Your task to perform on an android device: Go to eBay Image 0: 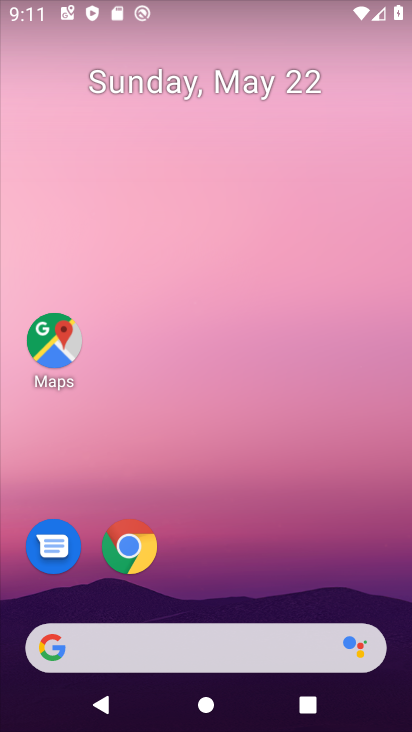
Step 0: click (141, 559)
Your task to perform on an android device: Go to eBay Image 1: 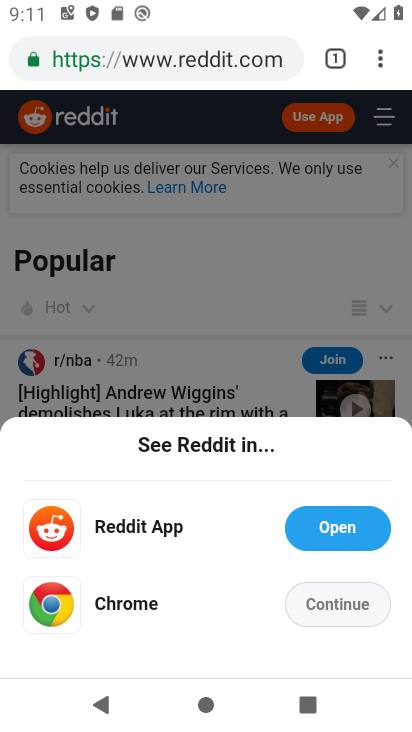
Step 1: click (283, 304)
Your task to perform on an android device: Go to eBay Image 2: 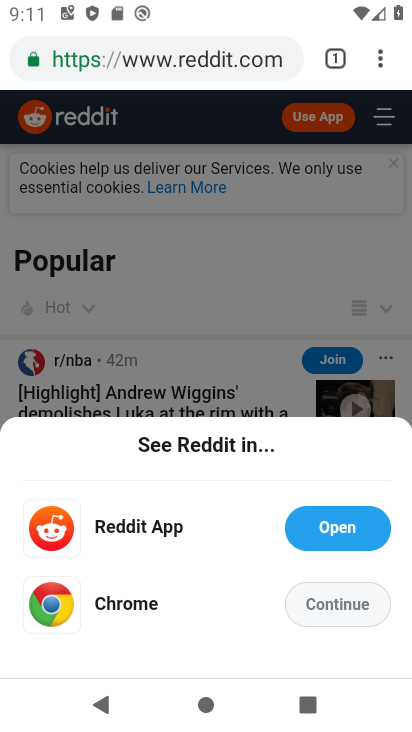
Step 2: click (237, 246)
Your task to perform on an android device: Go to eBay Image 3: 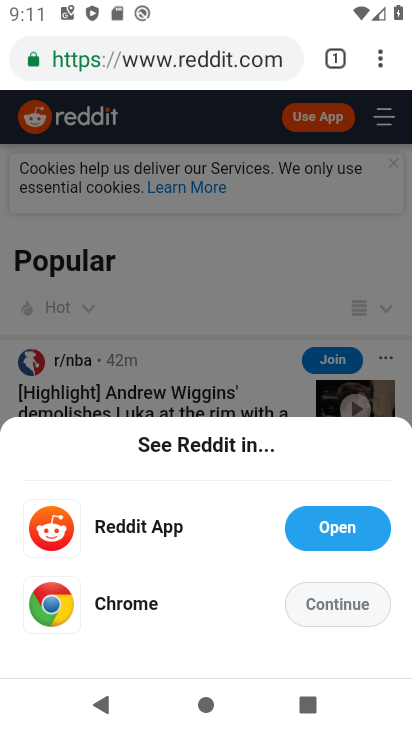
Step 3: click (330, 62)
Your task to perform on an android device: Go to eBay Image 4: 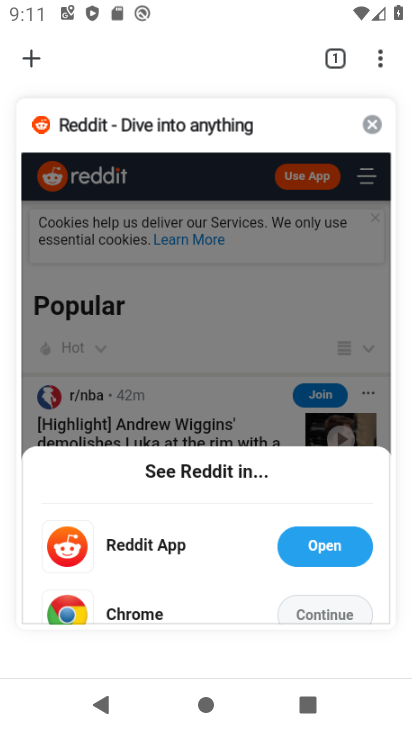
Step 4: click (34, 51)
Your task to perform on an android device: Go to eBay Image 5: 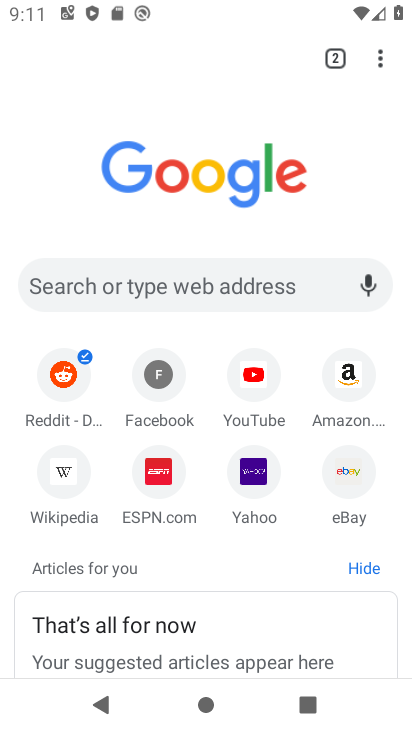
Step 5: click (347, 484)
Your task to perform on an android device: Go to eBay Image 6: 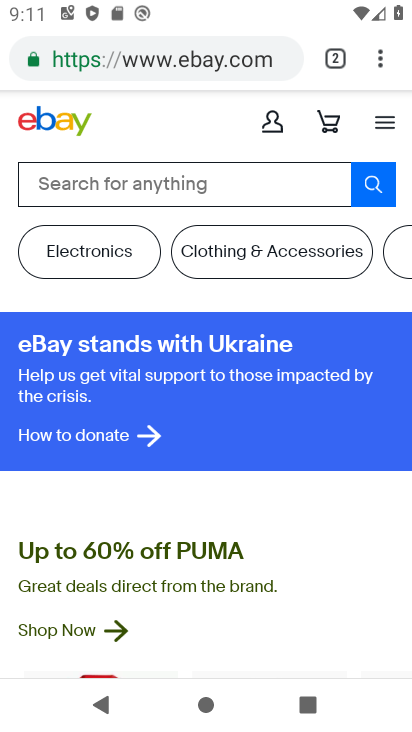
Step 6: task complete